Your task to perform on an android device: open sync settings in chrome Image 0: 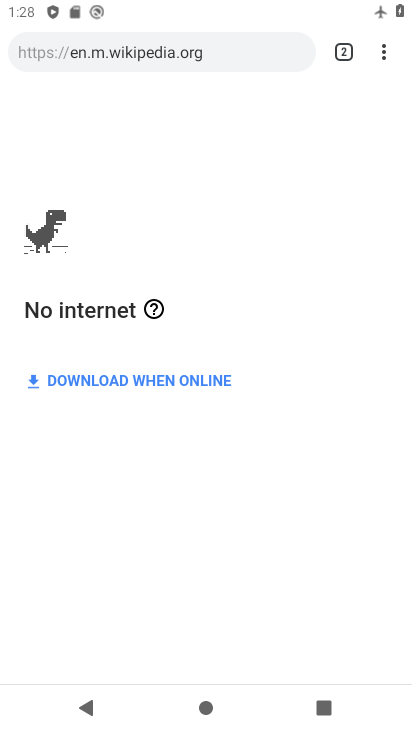
Step 0: press home button
Your task to perform on an android device: open sync settings in chrome Image 1: 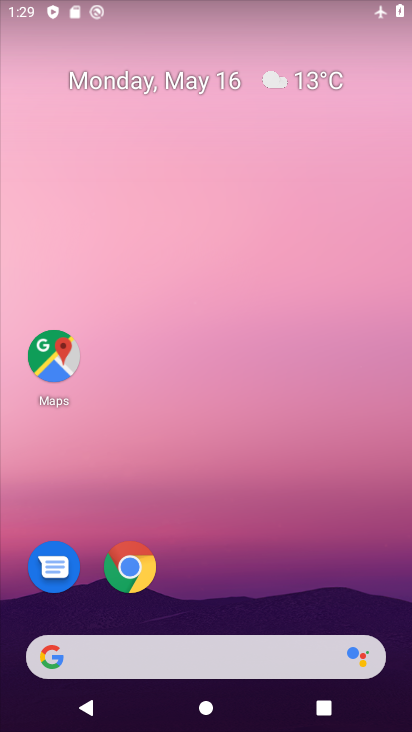
Step 1: click (129, 568)
Your task to perform on an android device: open sync settings in chrome Image 2: 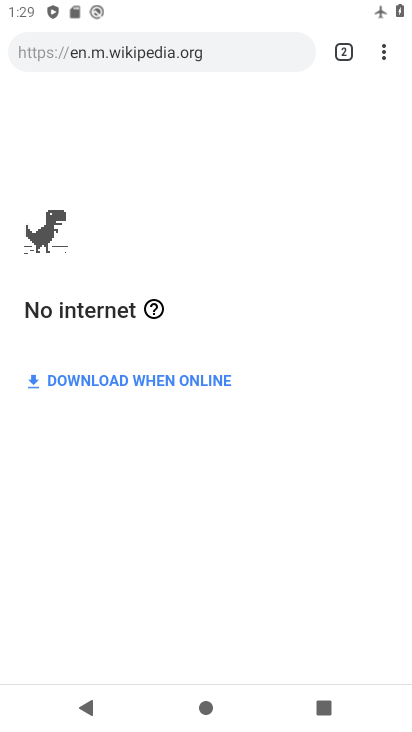
Step 2: click (381, 52)
Your task to perform on an android device: open sync settings in chrome Image 3: 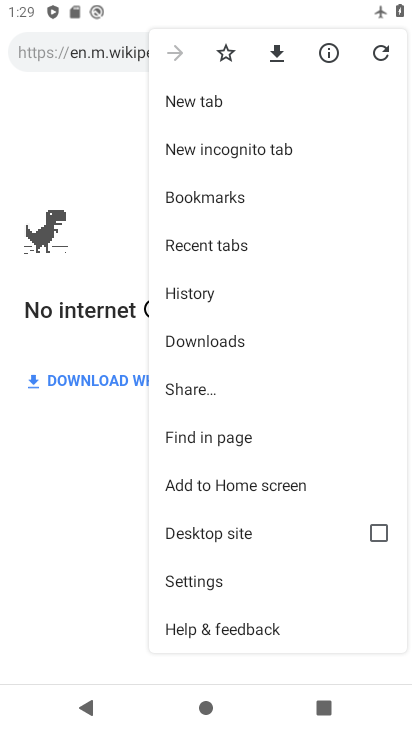
Step 3: click (190, 581)
Your task to perform on an android device: open sync settings in chrome Image 4: 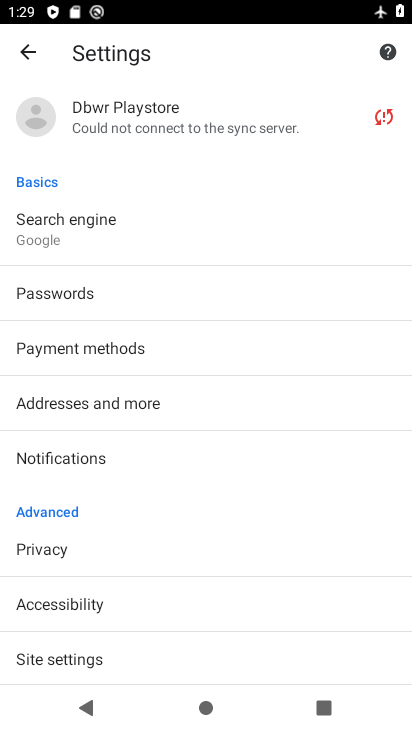
Step 4: click (141, 111)
Your task to perform on an android device: open sync settings in chrome Image 5: 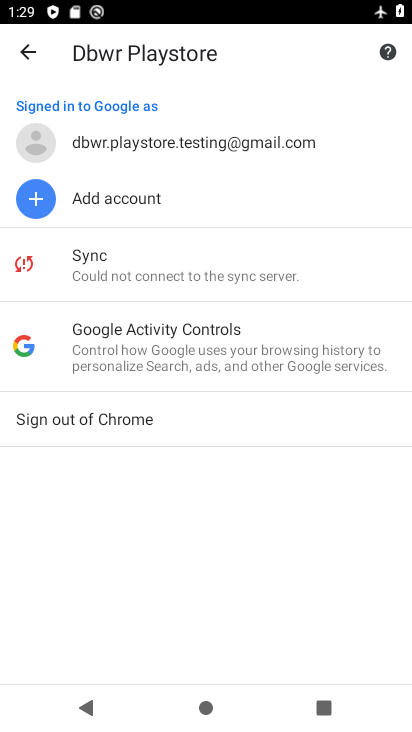
Step 5: click (85, 259)
Your task to perform on an android device: open sync settings in chrome Image 6: 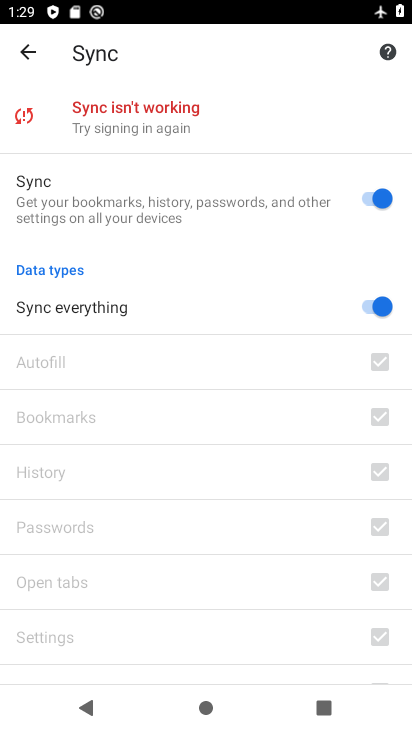
Step 6: task complete